Your task to perform on an android device: toggle priority inbox in the gmail app Image 0: 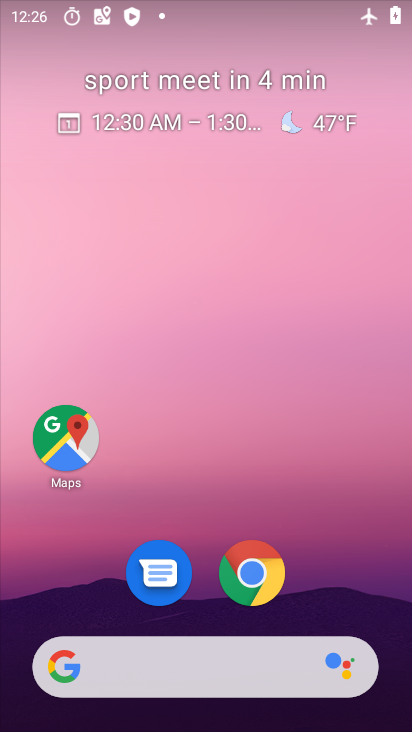
Step 0: drag from (220, 556) to (225, 153)
Your task to perform on an android device: toggle priority inbox in the gmail app Image 1: 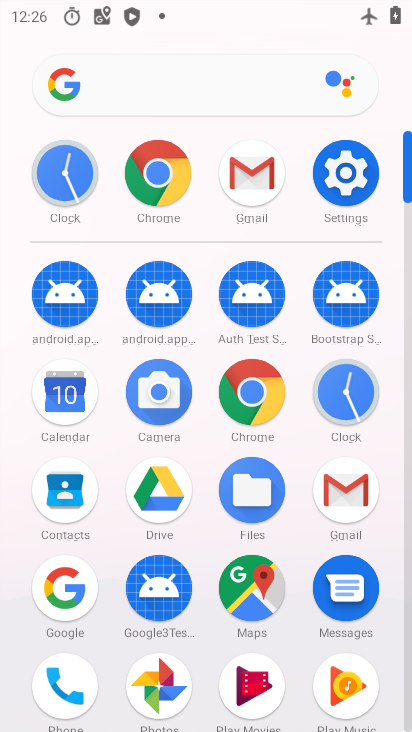
Step 1: click (351, 499)
Your task to perform on an android device: toggle priority inbox in the gmail app Image 2: 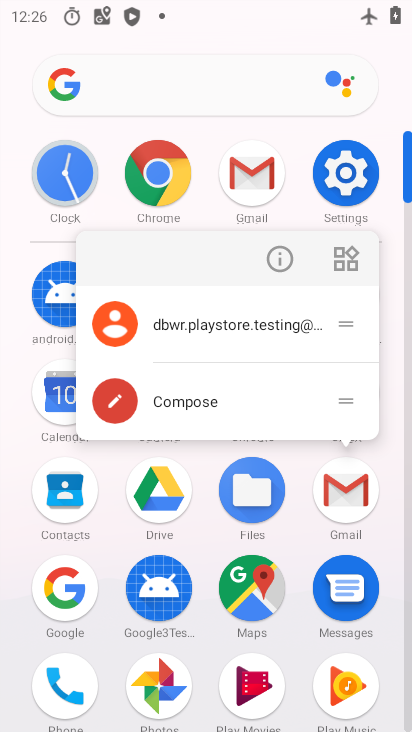
Step 2: click (277, 258)
Your task to perform on an android device: toggle priority inbox in the gmail app Image 3: 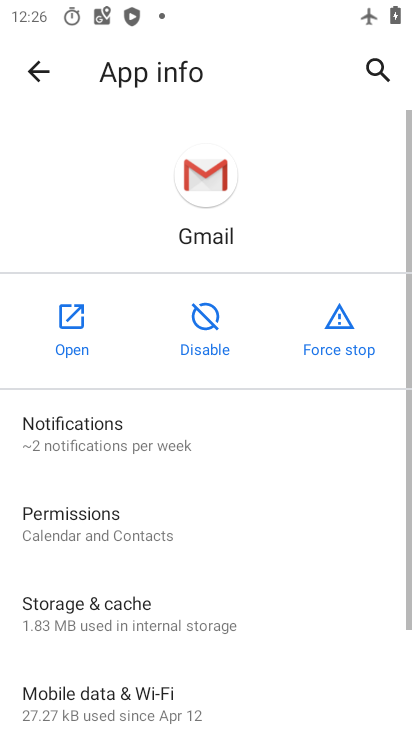
Step 3: click (75, 338)
Your task to perform on an android device: toggle priority inbox in the gmail app Image 4: 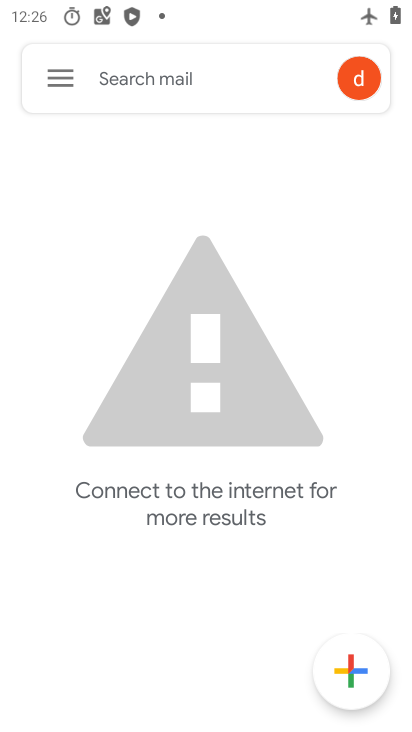
Step 4: click (46, 70)
Your task to perform on an android device: toggle priority inbox in the gmail app Image 5: 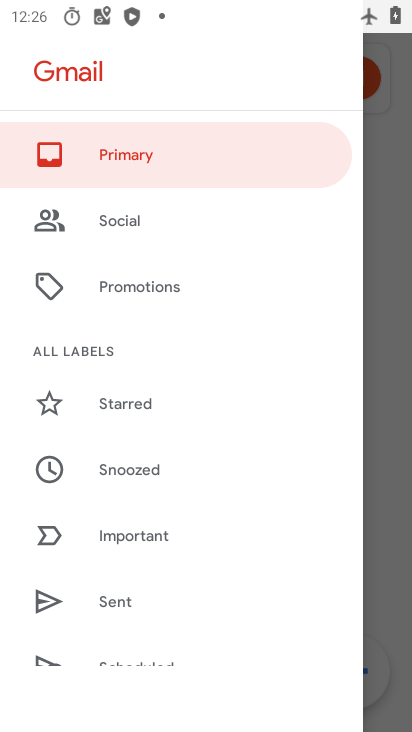
Step 5: drag from (179, 577) to (216, 259)
Your task to perform on an android device: toggle priority inbox in the gmail app Image 6: 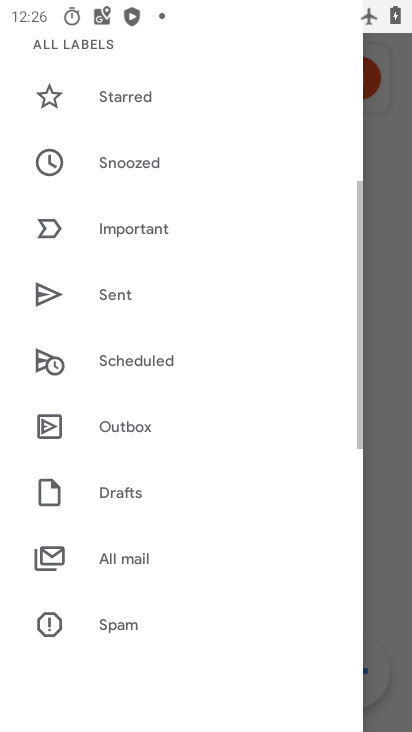
Step 6: drag from (157, 585) to (187, 237)
Your task to perform on an android device: toggle priority inbox in the gmail app Image 7: 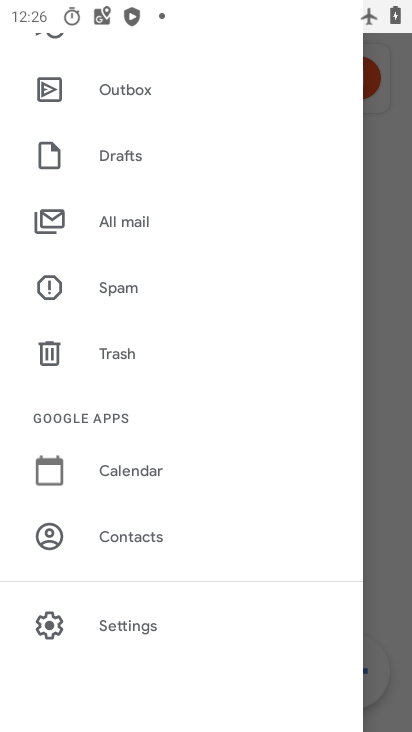
Step 7: click (140, 620)
Your task to perform on an android device: toggle priority inbox in the gmail app Image 8: 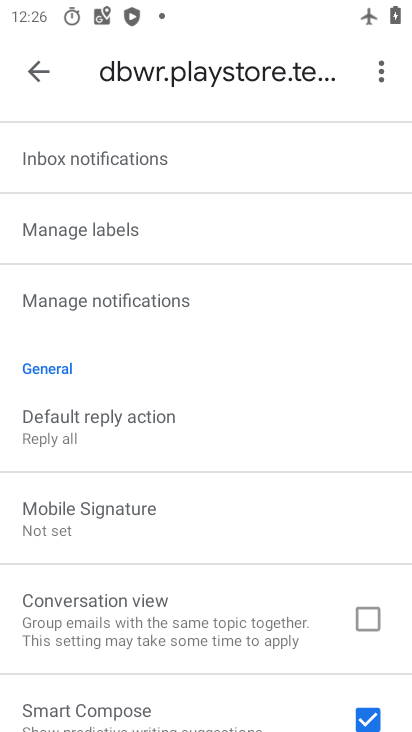
Step 8: drag from (171, 302) to (232, 727)
Your task to perform on an android device: toggle priority inbox in the gmail app Image 9: 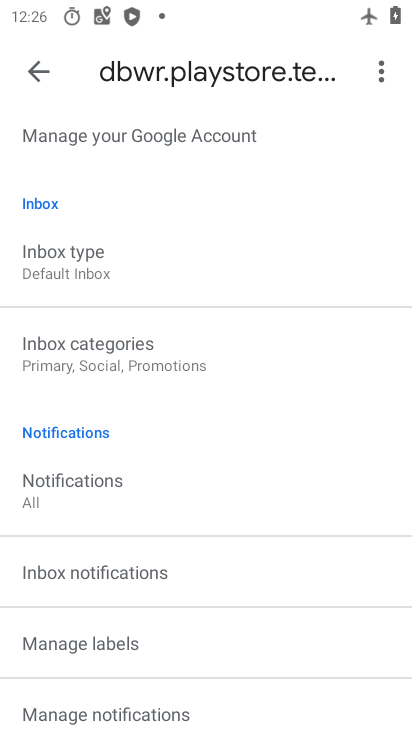
Step 9: drag from (188, 614) to (248, 271)
Your task to perform on an android device: toggle priority inbox in the gmail app Image 10: 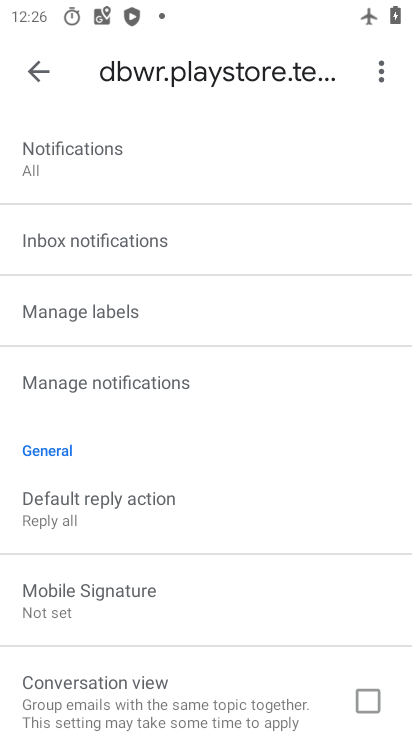
Step 10: drag from (186, 284) to (207, 725)
Your task to perform on an android device: toggle priority inbox in the gmail app Image 11: 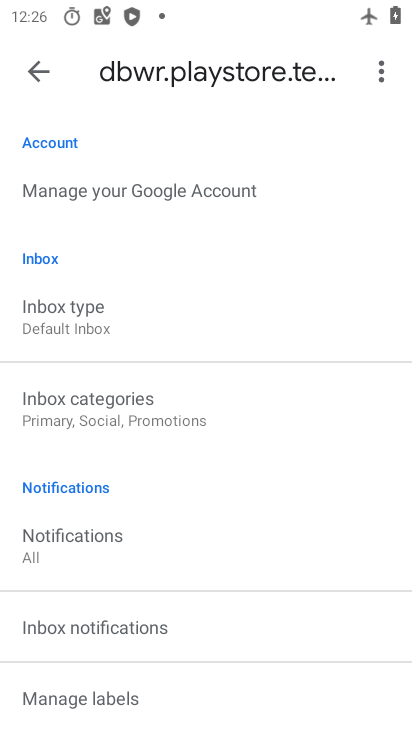
Step 11: drag from (199, 311) to (227, 725)
Your task to perform on an android device: toggle priority inbox in the gmail app Image 12: 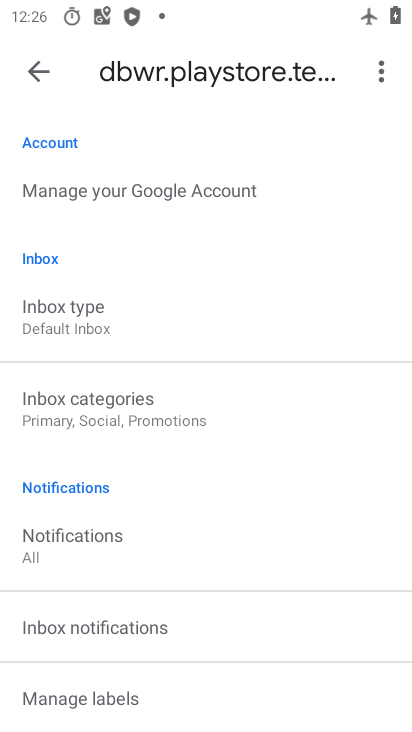
Step 12: click (121, 326)
Your task to perform on an android device: toggle priority inbox in the gmail app Image 13: 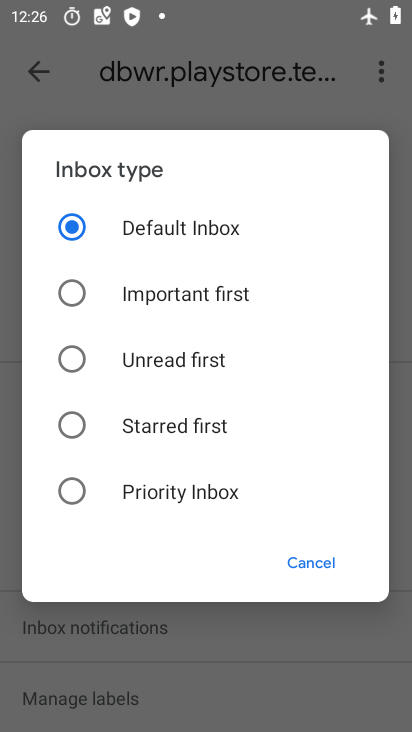
Step 13: click (124, 497)
Your task to perform on an android device: toggle priority inbox in the gmail app Image 14: 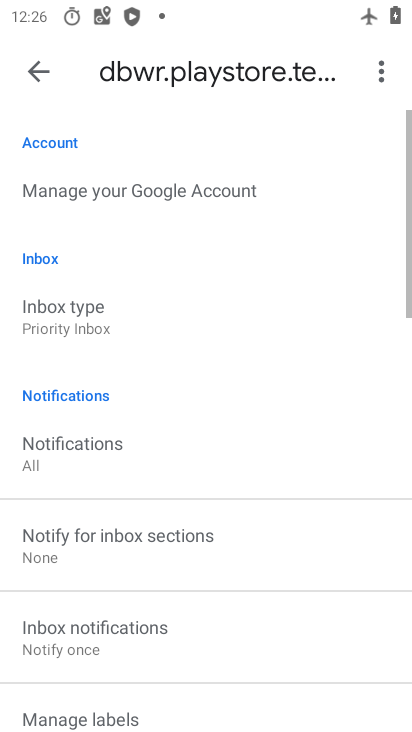
Step 14: task complete